Your task to perform on an android device: Show me popular games on the Play Store Image 0: 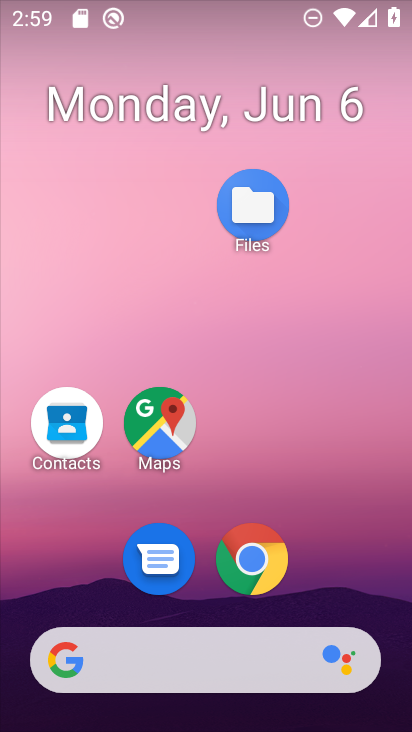
Step 0: drag from (96, 650) to (96, 11)
Your task to perform on an android device: Show me popular games on the Play Store Image 1: 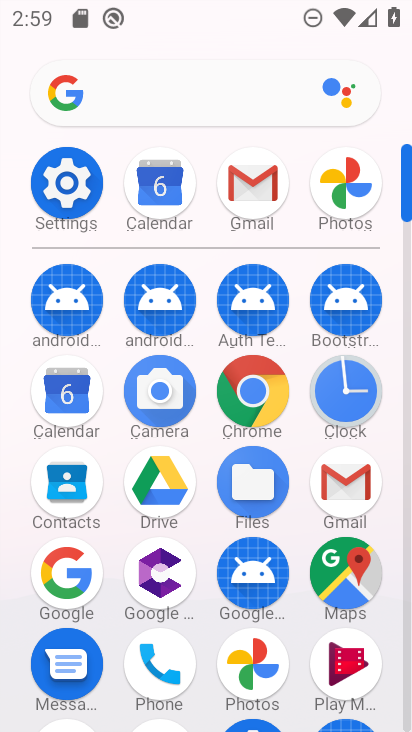
Step 1: drag from (249, 466) to (292, 6)
Your task to perform on an android device: Show me popular games on the Play Store Image 2: 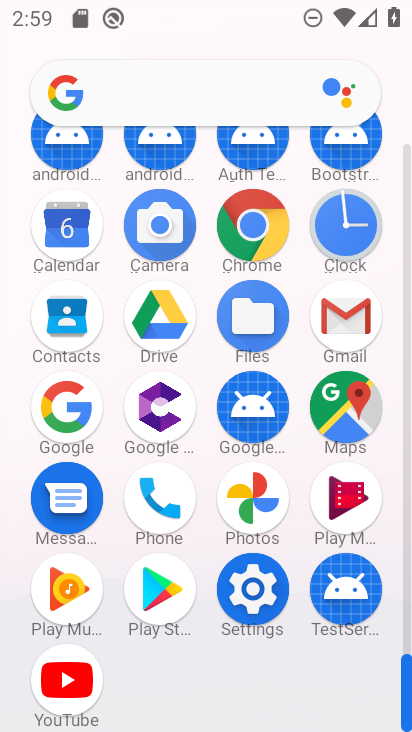
Step 2: click (147, 603)
Your task to perform on an android device: Show me popular games on the Play Store Image 3: 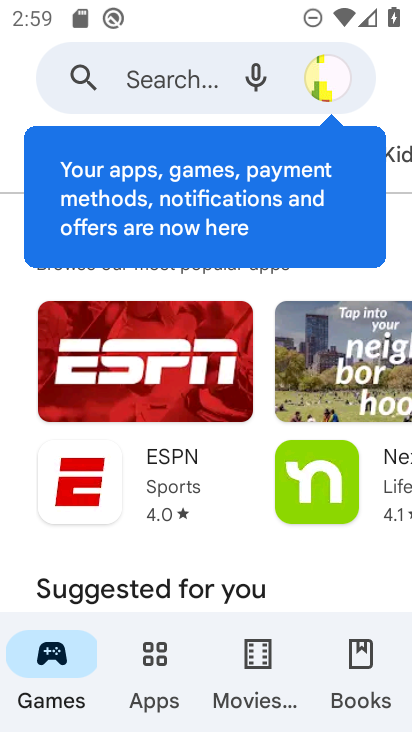
Step 3: task complete